Your task to perform on an android device: Open settings Image 0: 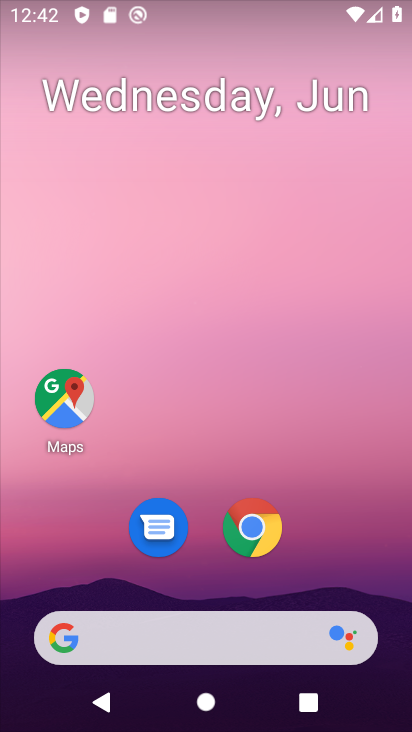
Step 0: drag from (156, 638) to (240, 109)
Your task to perform on an android device: Open settings Image 1: 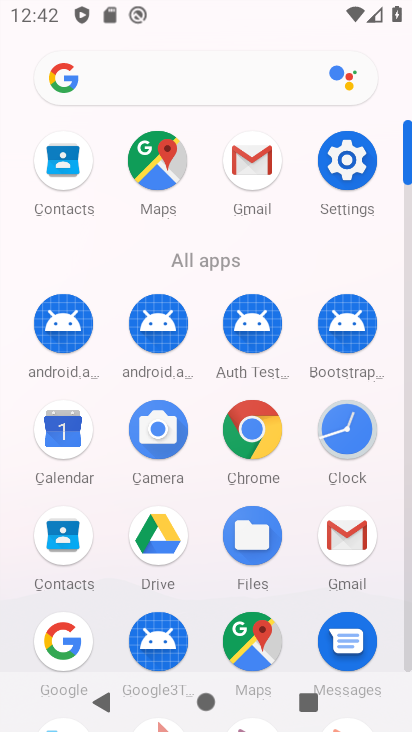
Step 1: click (351, 179)
Your task to perform on an android device: Open settings Image 2: 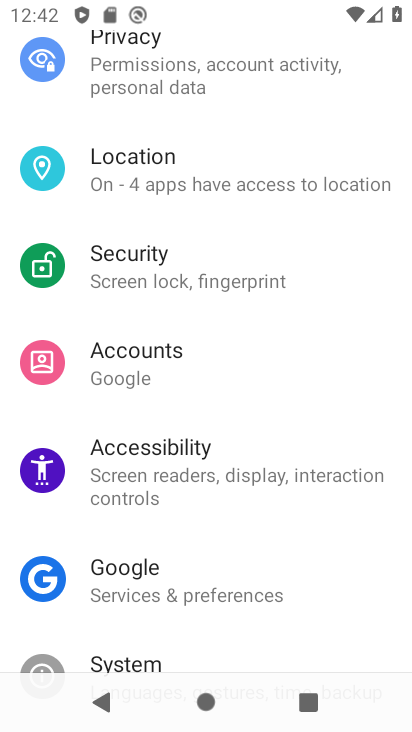
Step 2: task complete